Your task to perform on an android device: toggle sleep mode Image 0: 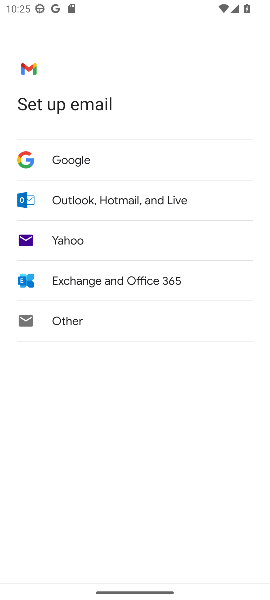
Step 0: press home button
Your task to perform on an android device: toggle sleep mode Image 1: 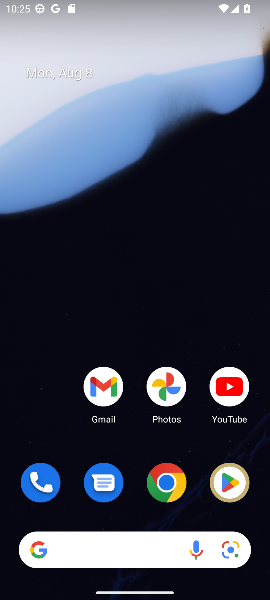
Step 1: drag from (151, 445) to (175, 0)
Your task to perform on an android device: toggle sleep mode Image 2: 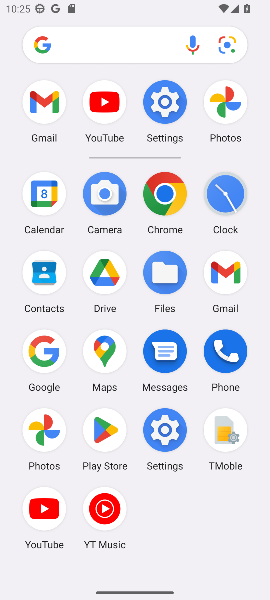
Step 2: click (157, 97)
Your task to perform on an android device: toggle sleep mode Image 3: 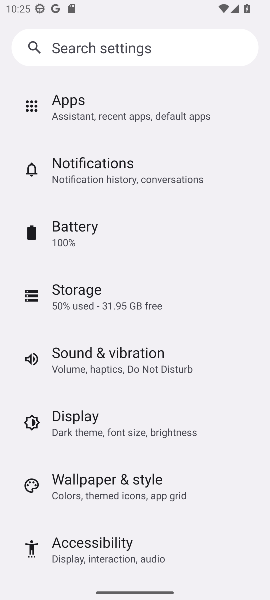
Step 3: click (114, 416)
Your task to perform on an android device: toggle sleep mode Image 4: 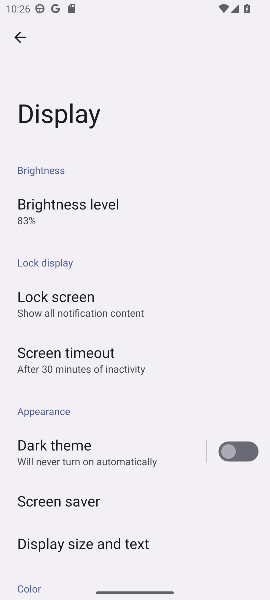
Step 4: task complete